Your task to perform on an android device: see tabs open on other devices in the chrome app Image 0: 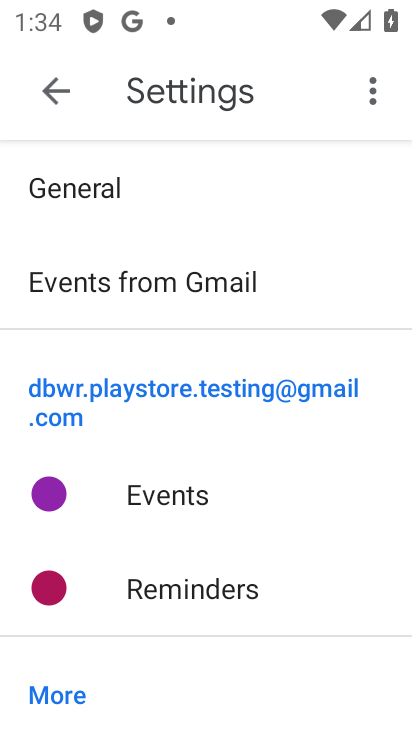
Step 0: press home button
Your task to perform on an android device: see tabs open on other devices in the chrome app Image 1: 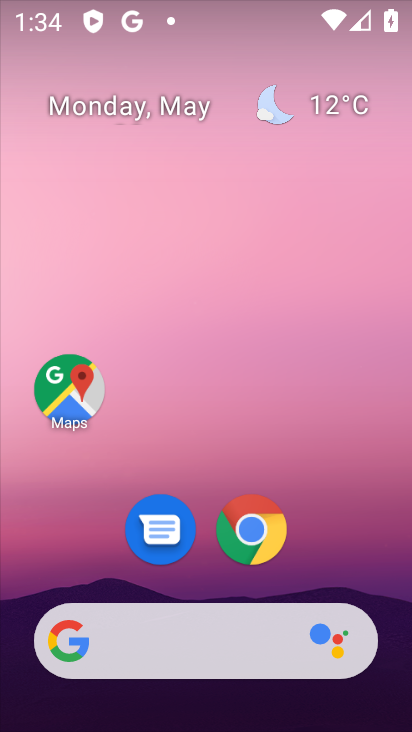
Step 1: click (247, 525)
Your task to perform on an android device: see tabs open on other devices in the chrome app Image 2: 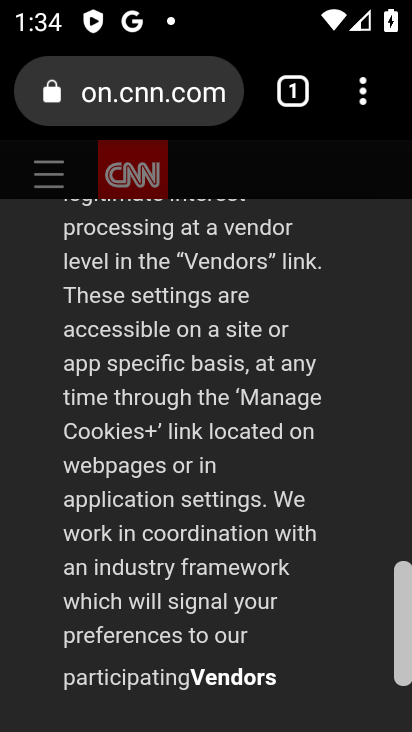
Step 2: click (361, 111)
Your task to perform on an android device: see tabs open on other devices in the chrome app Image 3: 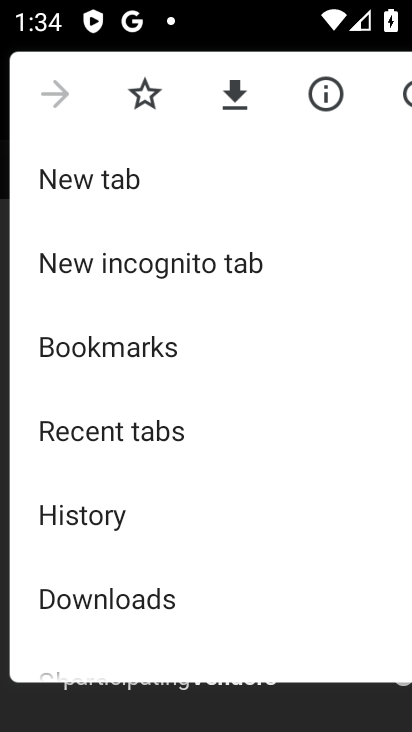
Step 3: click (110, 423)
Your task to perform on an android device: see tabs open on other devices in the chrome app Image 4: 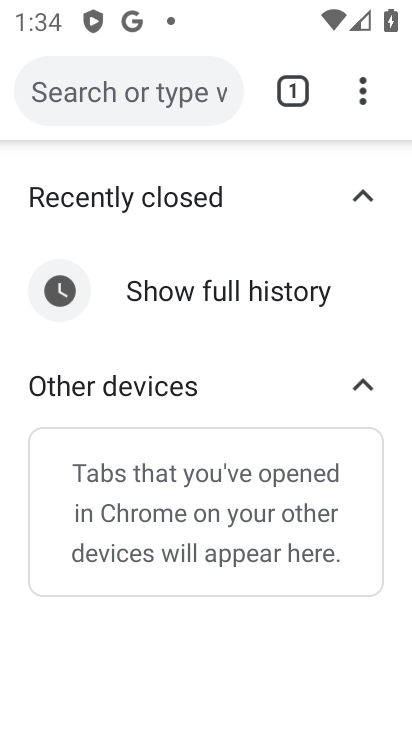
Step 4: task complete